Your task to perform on an android device: change the clock display to digital Image 0: 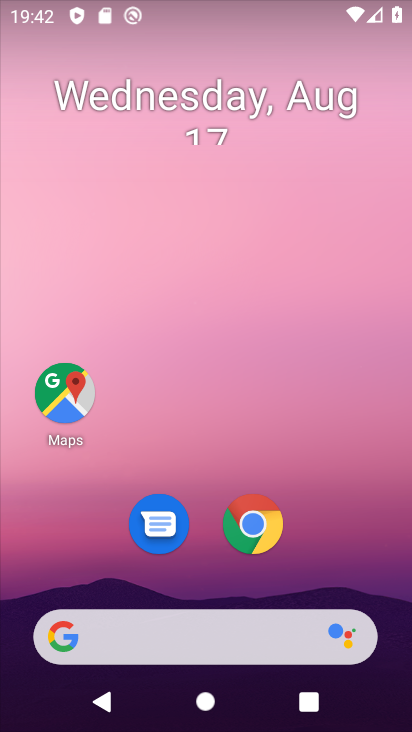
Step 0: drag from (317, 536) to (339, 28)
Your task to perform on an android device: change the clock display to digital Image 1: 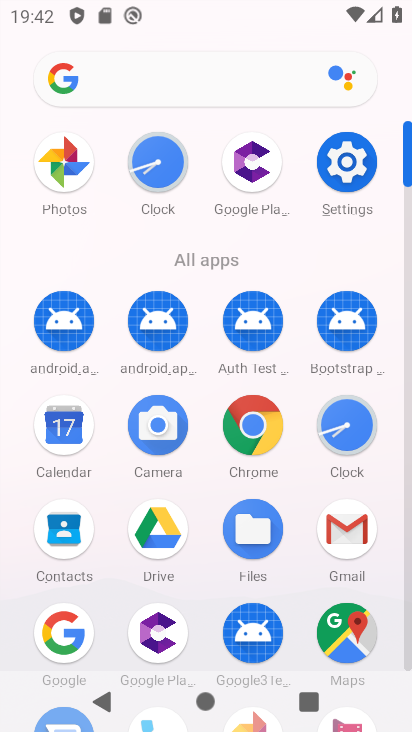
Step 1: click (156, 156)
Your task to perform on an android device: change the clock display to digital Image 2: 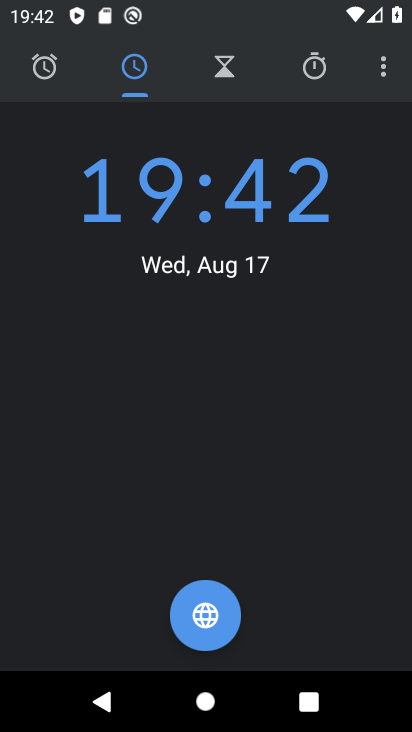
Step 2: task complete